Your task to perform on an android device: Open sound settings Image 0: 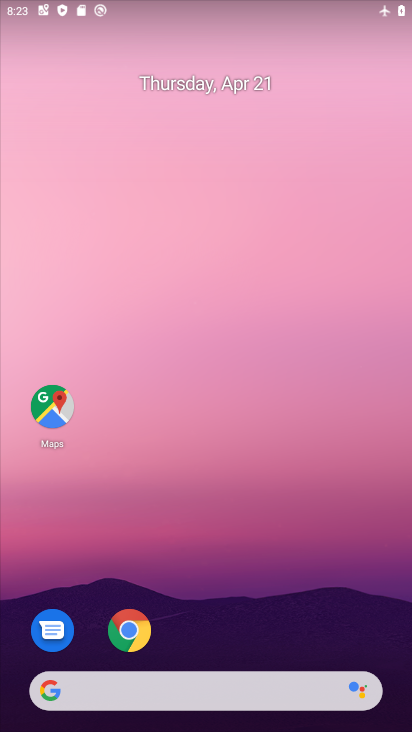
Step 0: click (343, 309)
Your task to perform on an android device: Open sound settings Image 1: 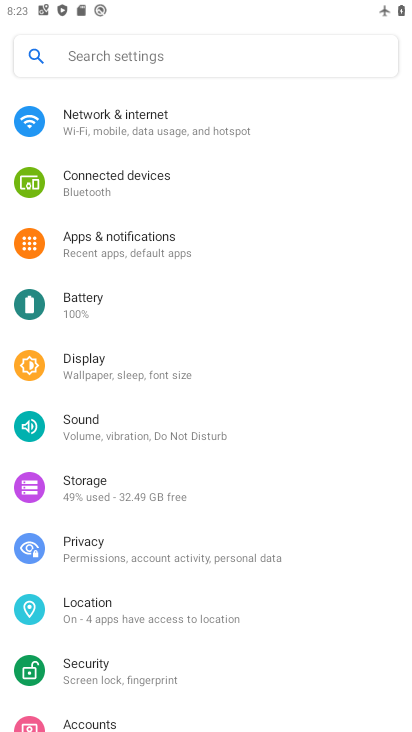
Step 1: click (82, 428)
Your task to perform on an android device: Open sound settings Image 2: 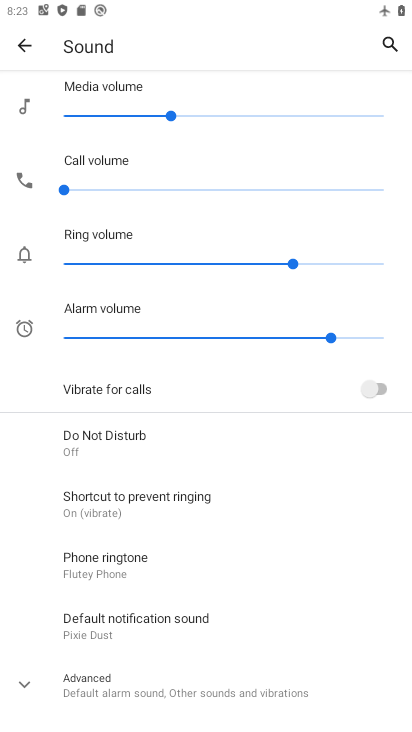
Step 2: task complete